Your task to perform on an android device: Open network settings Image 0: 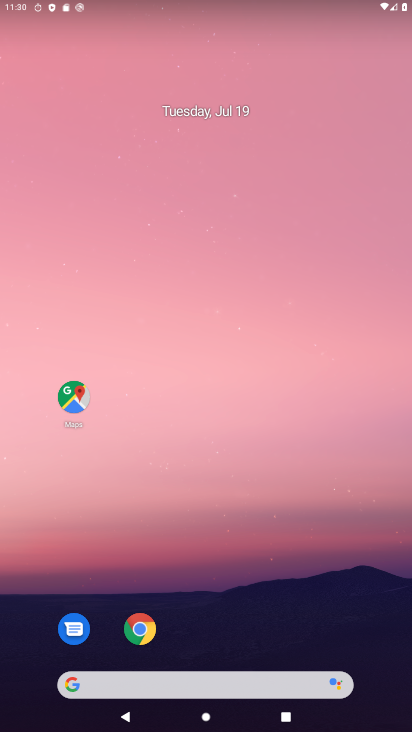
Step 0: click (240, 207)
Your task to perform on an android device: Open network settings Image 1: 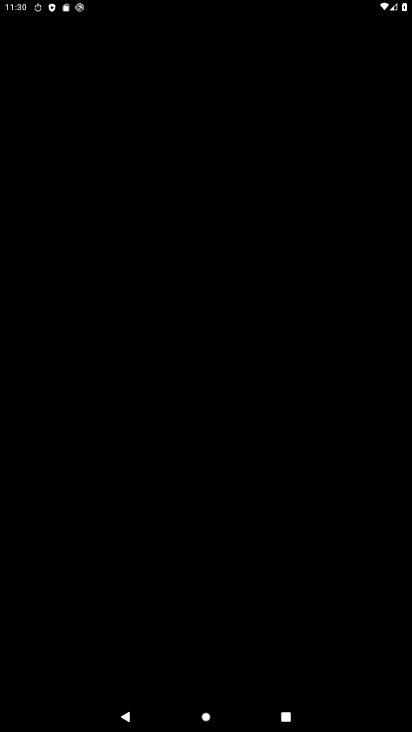
Step 1: press home button
Your task to perform on an android device: Open network settings Image 2: 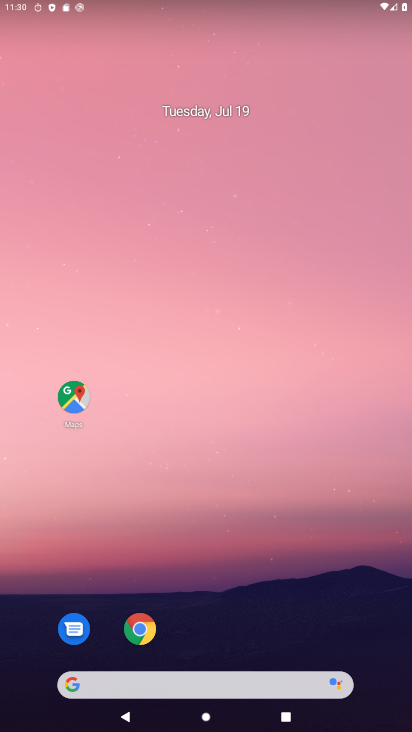
Step 2: drag from (289, 572) to (227, 71)
Your task to perform on an android device: Open network settings Image 3: 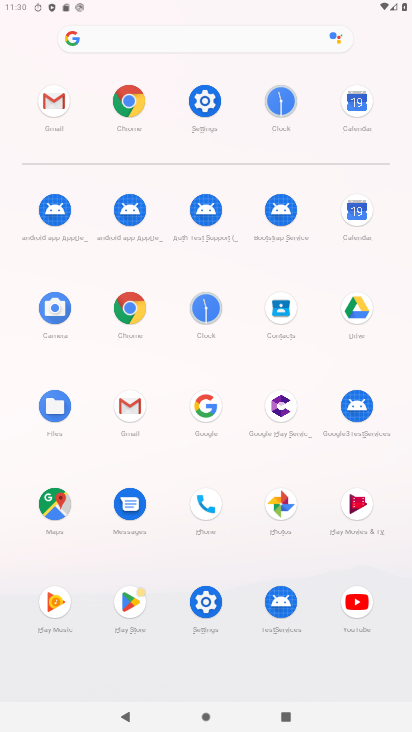
Step 3: click (202, 114)
Your task to perform on an android device: Open network settings Image 4: 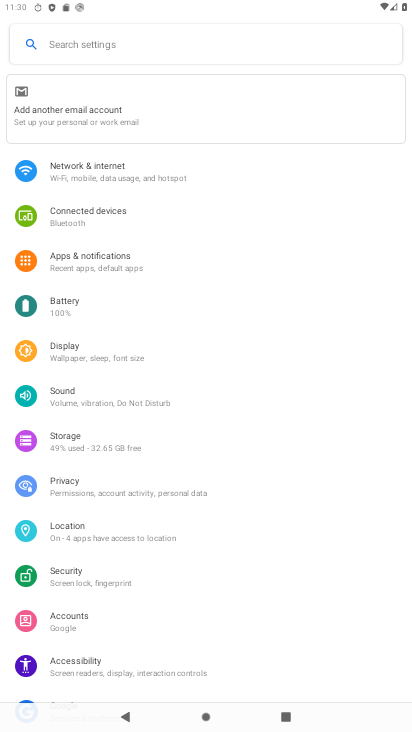
Step 4: click (141, 169)
Your task to perform on an android device: Open network settings Image 5: 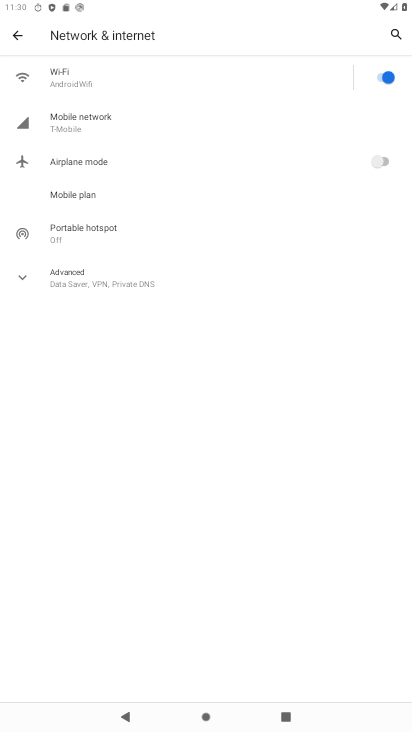
Step 5: task complete